Your task to perform on an android device: remove spam from my inbox in the gmail app Image 0: 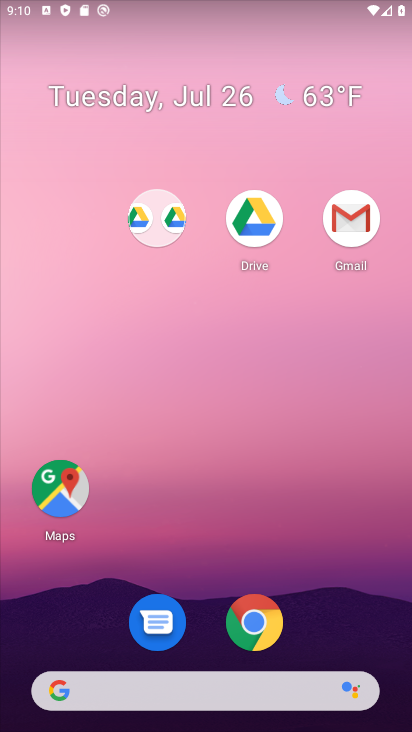
Step 0: click (371, 243)
Your task to perform on an android device: remove spam from my inbox in the gmail app Image 1: 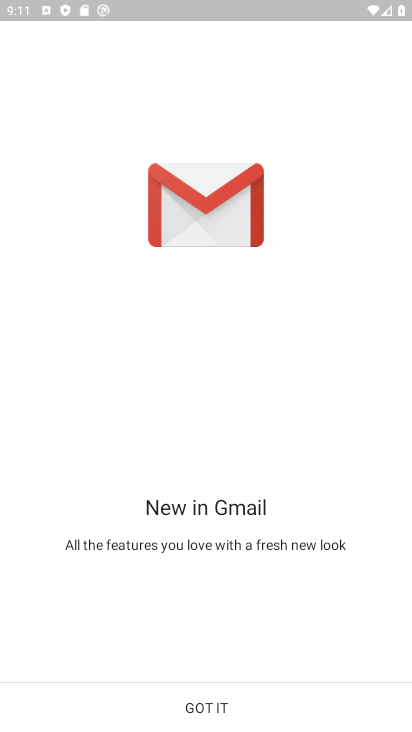
Step 1: click (179, 687)
Your task to perform on an android device: remove spam from my inbox in the gmail app Image 2: 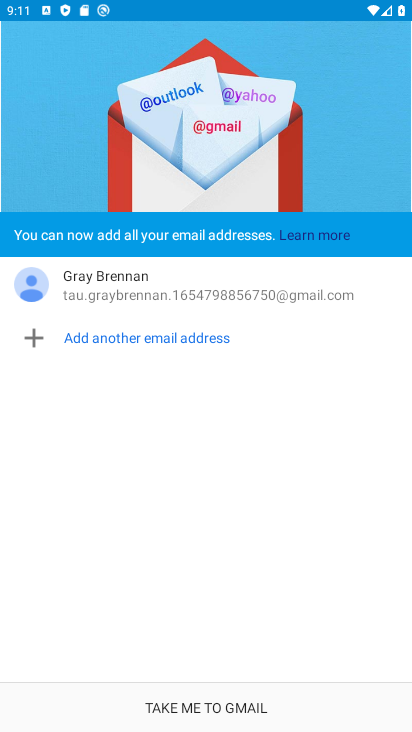
Step 2: click (228, 713)
Your task to perform on an android device: remove spam from my inbox in the gmail app Image 3: 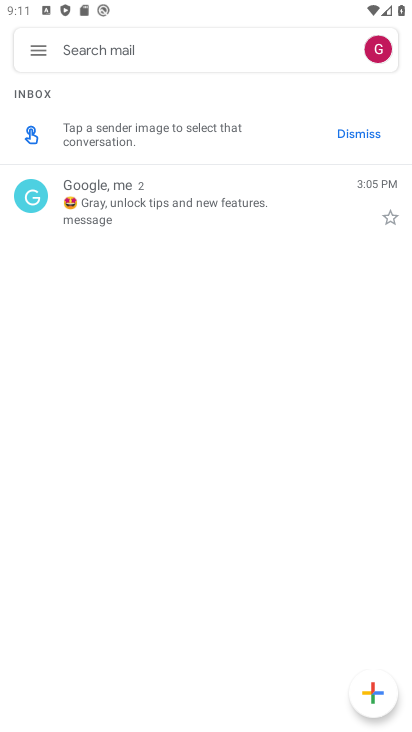
Step 3: click (48, 47)
Your task to perform on an android device: remove spam from my inbox in the gmail app Image 4: 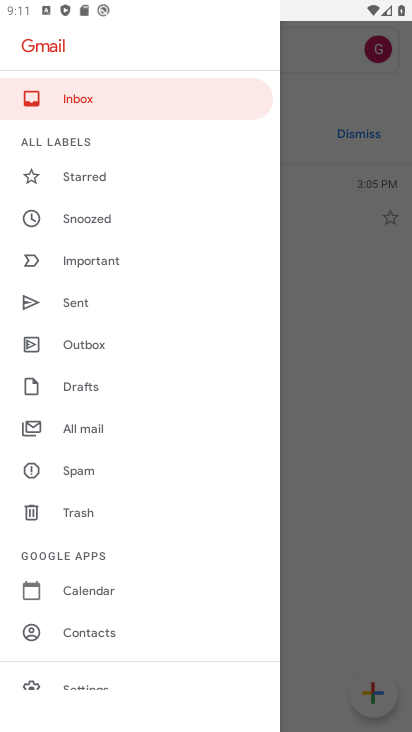
Step 4: click (99, 460)
Your task to perform on an android device: remove spam from my inbox in the gmail app Image 5: 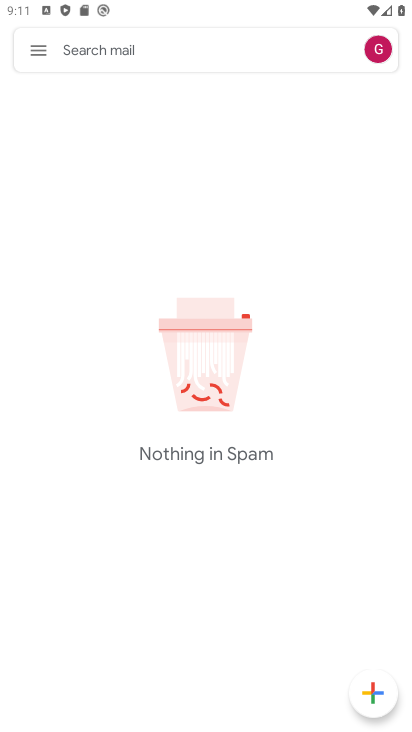
Step 5: task complete